Your task to perform on an android device: Open the map Image 0: 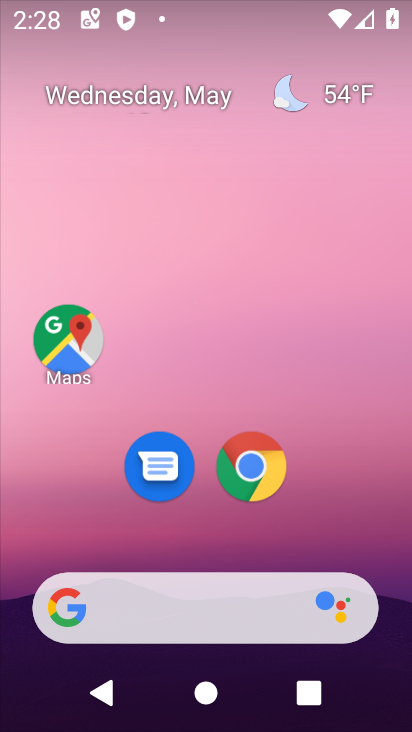
Step 0: click (86, 329)
Your task to perform on an android device: Open the map Image 1: 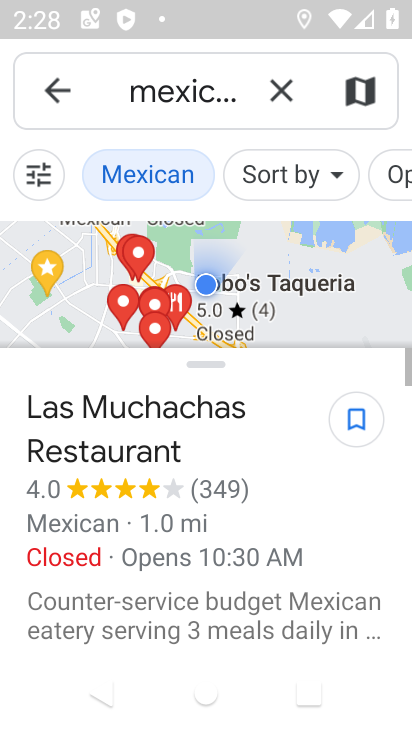
Step 1: task complete